Your task to perform on an android device: change notification settings in the gmail app Image 0: 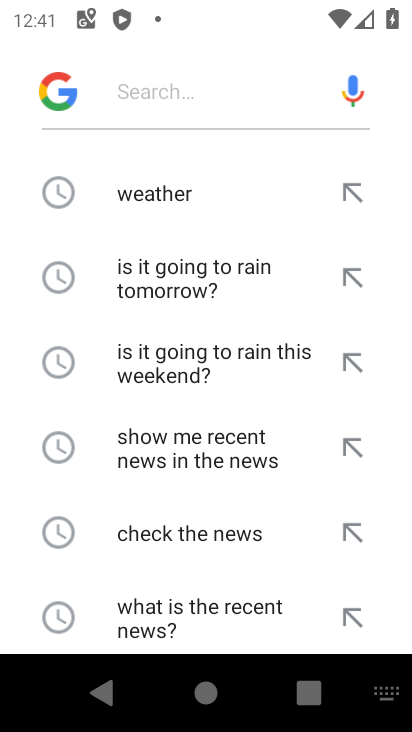
Step 0: press home button
Your task to perform on an android device: change notification settings in the gmail app Image 1: 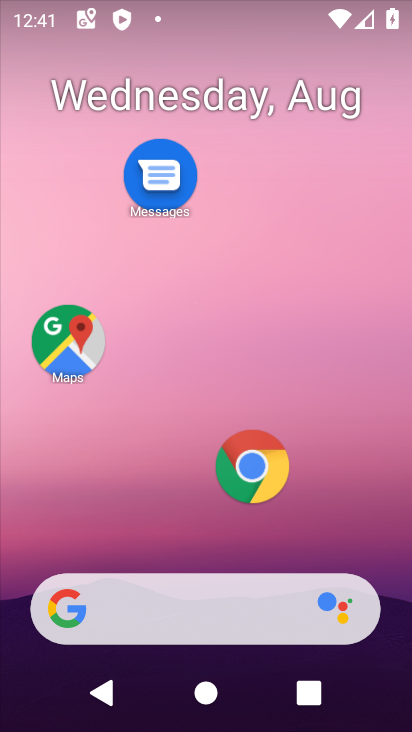
Step 1: drag from (209, 504) to (237, 14)
Your task to perform on an android device: change notification settings in the gmail app Image 2: 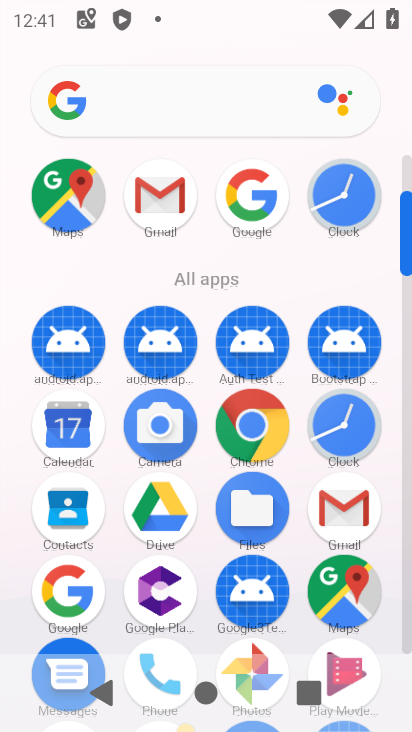
Step 2: click (146, 196)
Your task to perform on an android device: change notification settings in the gmail app Image 3: 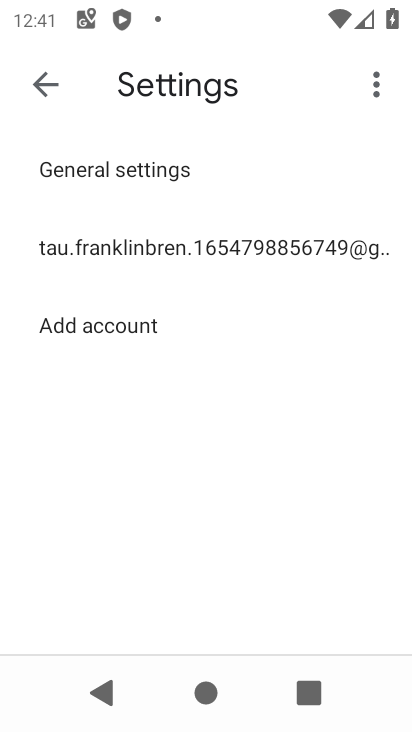
Step 3: click (131, 239)
Your task to perform on an android device: change notification settings in the gmail app Image 4: 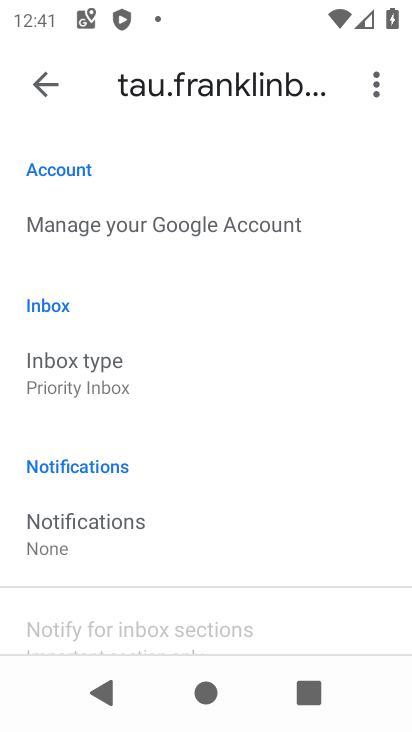
Step 4: click (65, 533)
Your task to perform on an android device: change notification settings in the gmail app Image 5: 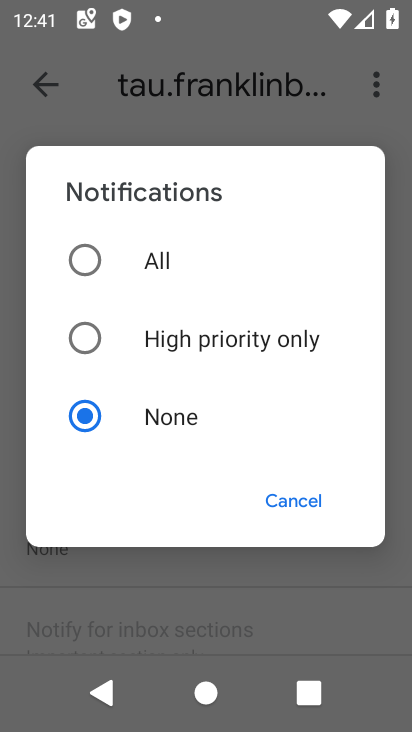
Step 5: click (92, 258)
Your task to perform on an android device: change notification settings in the gmail app Image 6: 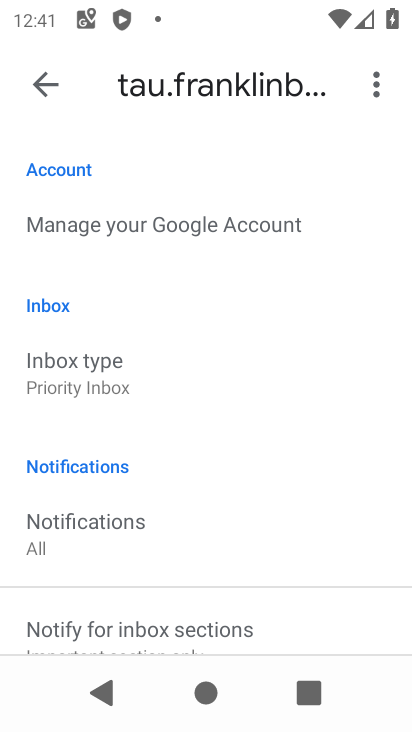
Step 6: task complete